Your task to perform on an android device: turn off javascript in the chrome app Image 0: 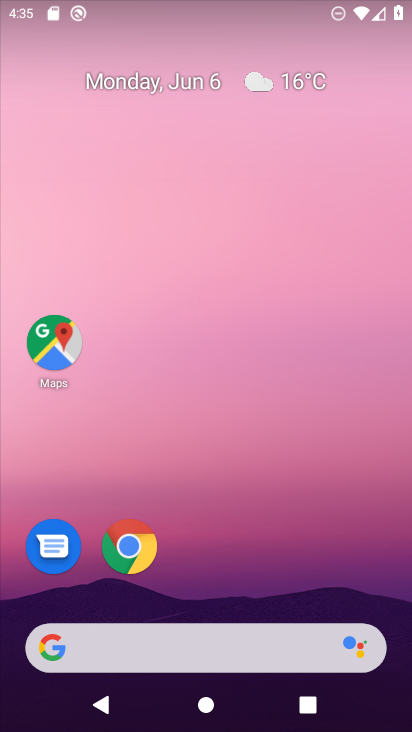
Step 0: drag from (166, 6) to (406, 473)
Your task to perform on an android device: turn off javascript in the chrome app Image 1: 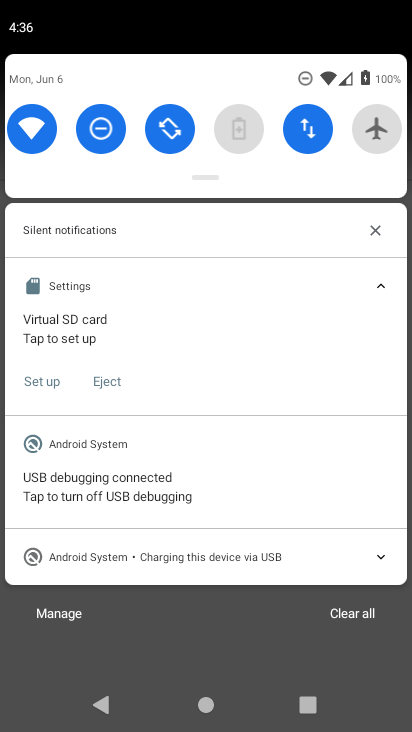
Step 1: press home button
Your task to perform on an android device: turn off javascript in the chrome app Image 2: 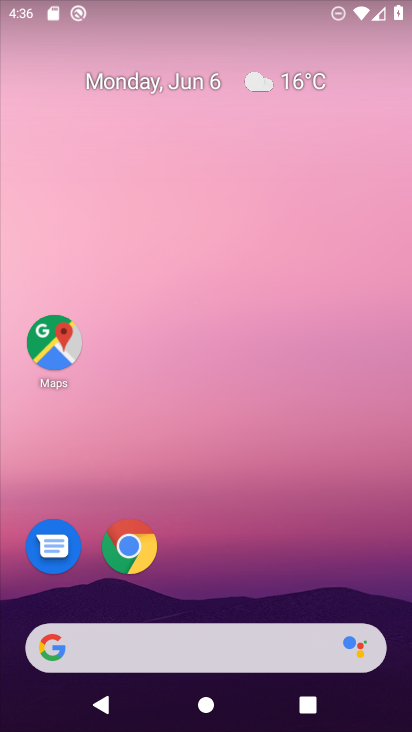
Step 2: click (122, 575)
Your task to perform on an android device: turn off javascript in the chrome app Image 3: 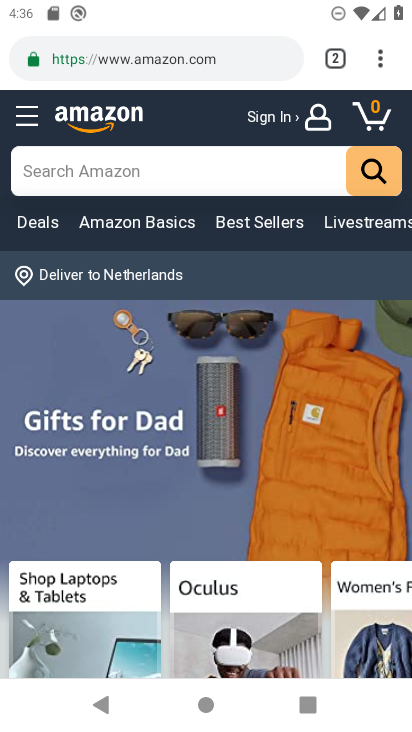
Step 3: drag from (383, 50) to (176, 581)
Your task to perform on an android device: turn off javascript in the chrome app Image 4: 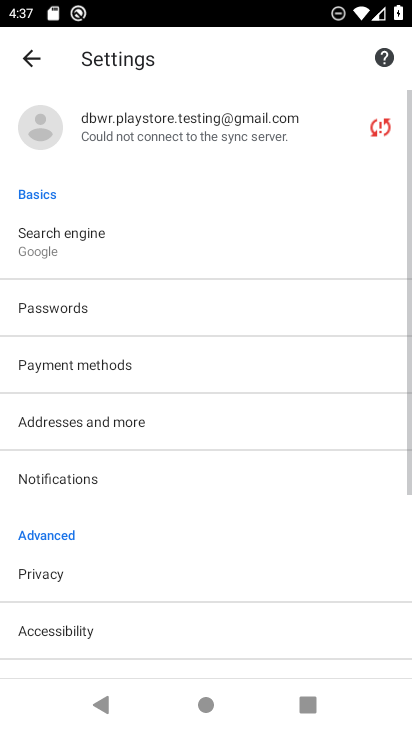
Step 4: drag from (175, 571) to (143, 130)
Your task to perform on an android device: turn off javascript in the chrome app Image 5: 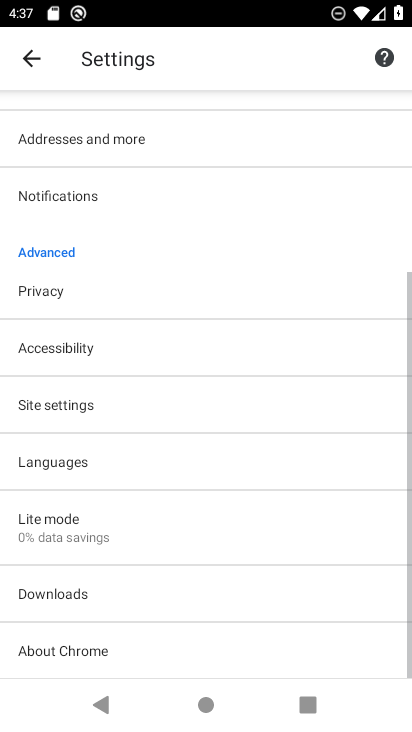
Step 5: click (87, 525)
Your task to perform on an android device: turn off javascript in the chrome app Image 6: 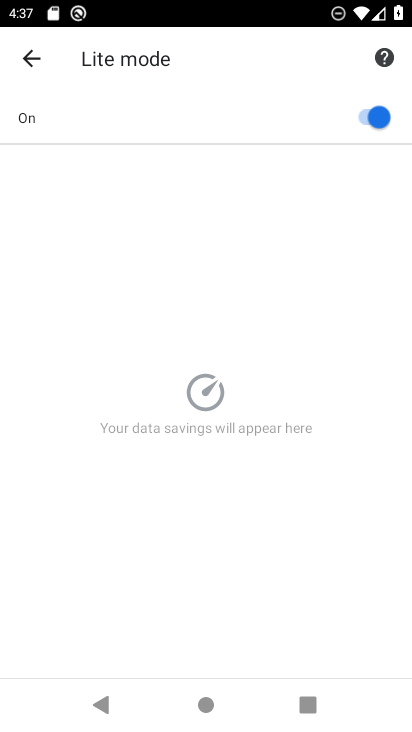
Step 6: click (33, 55)
Your task to perform on an android device: turn off javascript in the chrome app Image 7: 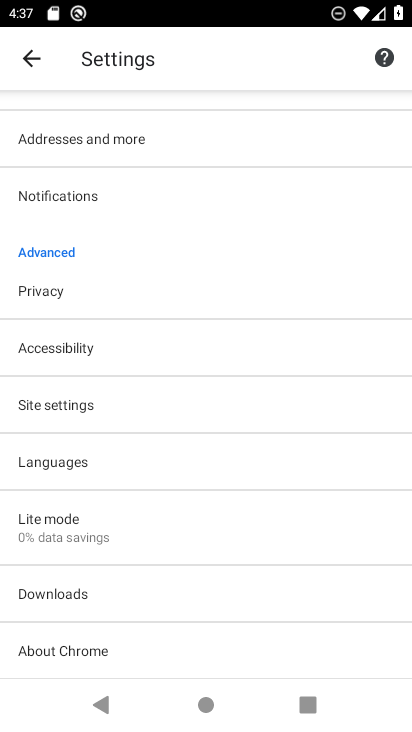
Step 7: click (90, 406)
Your task to perform on an android device: turn off javascript in the chrome app Image 8: 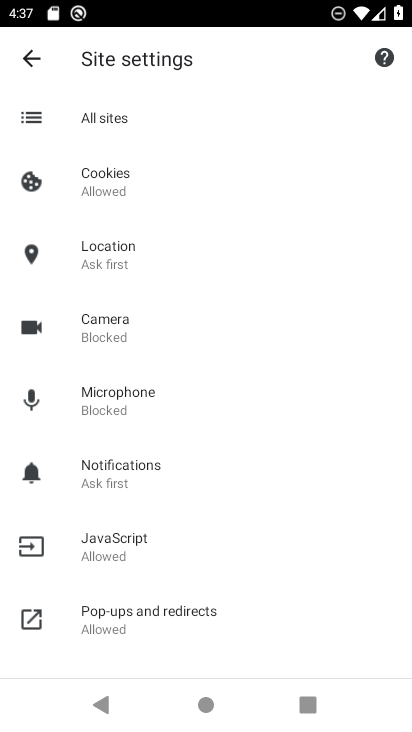
Step 8: click (108, 557)
Your task to perform on an android device: turn off javascript in the chrome app Image 9: 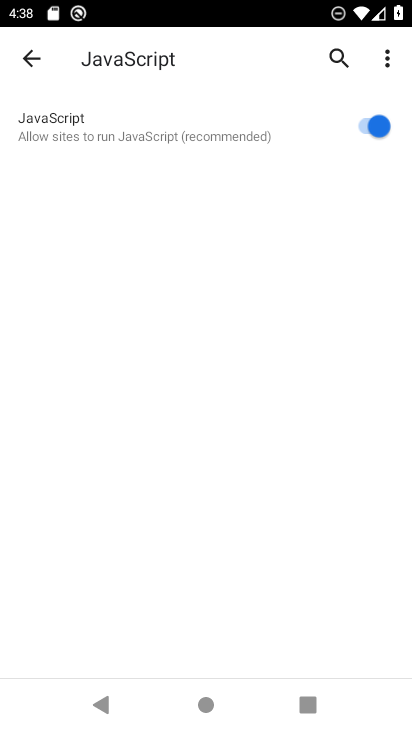
Step 9: click (376, 117)
Your task to perform on an android device: turn off javascript in the chrome app Image 10: 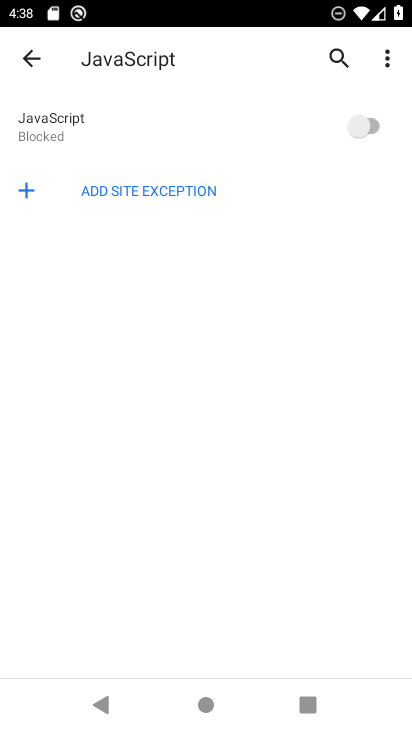
Step 10: task complete